Your task to perform on an android device: Add acer nitro to the cart on amazon.com Image 0: 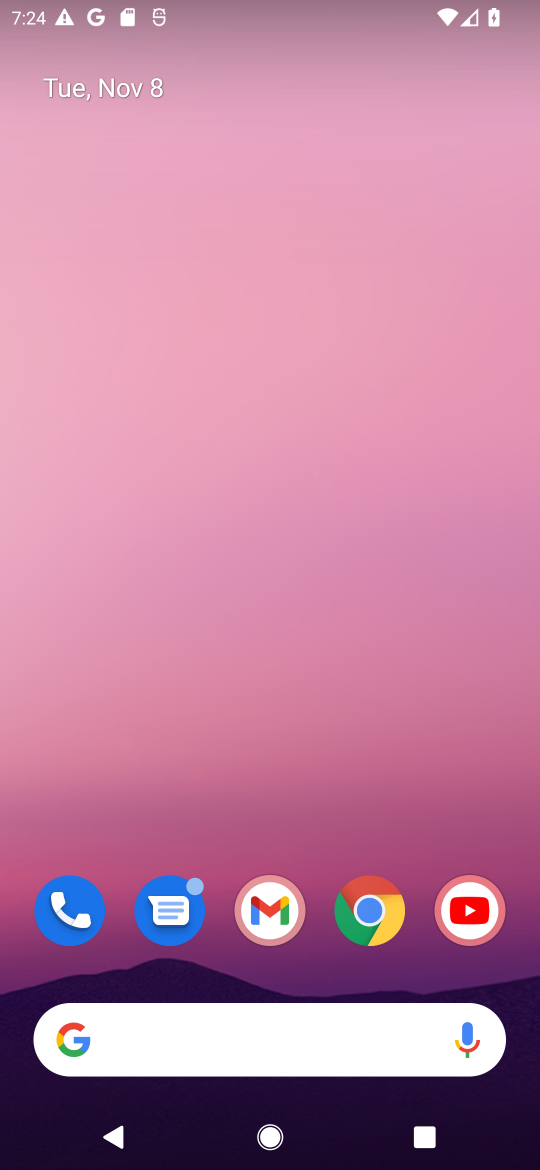
Step 0: click (381, 900)
Your task to perform on an android device: Add acer nitro to the cart on amazon.com Image 1: 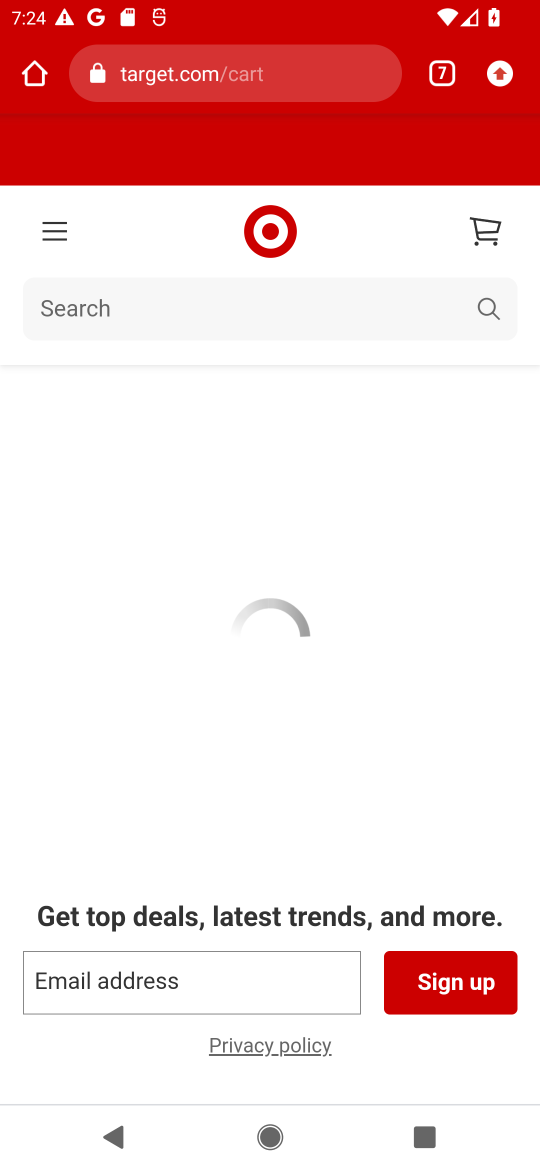
Step 1: click (437, 75)
Your task to perform on an android device: Add acer nitro to the cart on amazon.com Image 2: 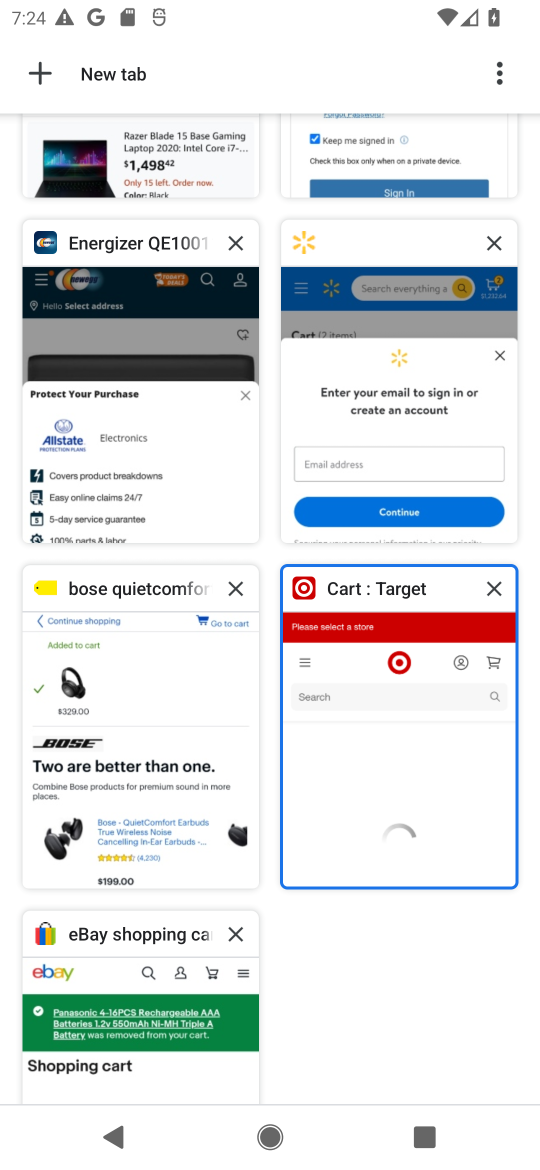
Step 2: drag from (202, 254) to (145, 820)
Your task to perform on an android device: Add acer nitro to the cart on amazon.com Image 3: 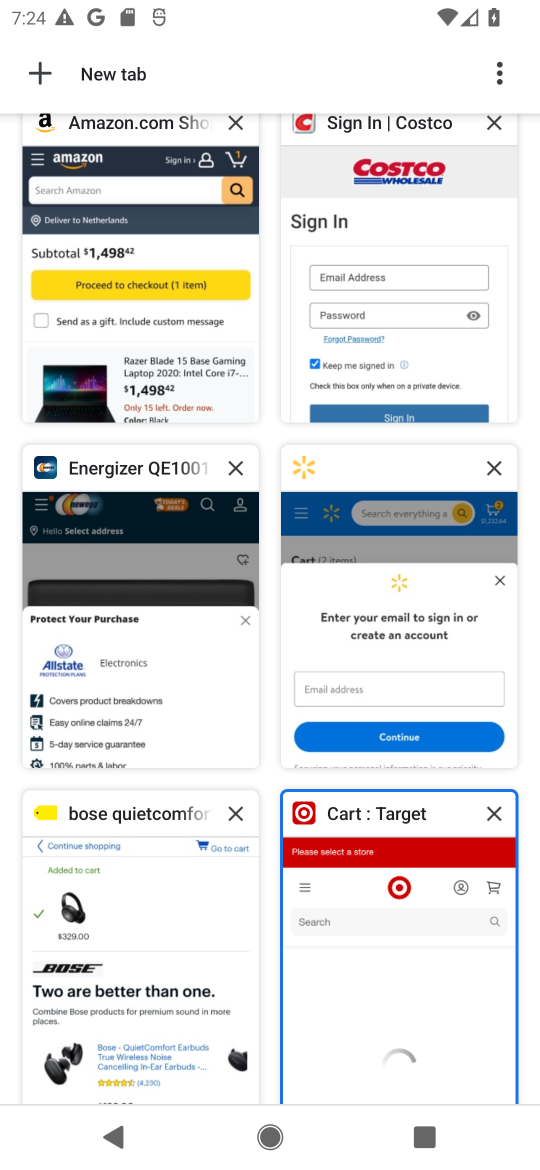
Step 3: click (178, 278)
Your task to perform on an android device: Add acer nitro to the cart on amazon.com Image 4: 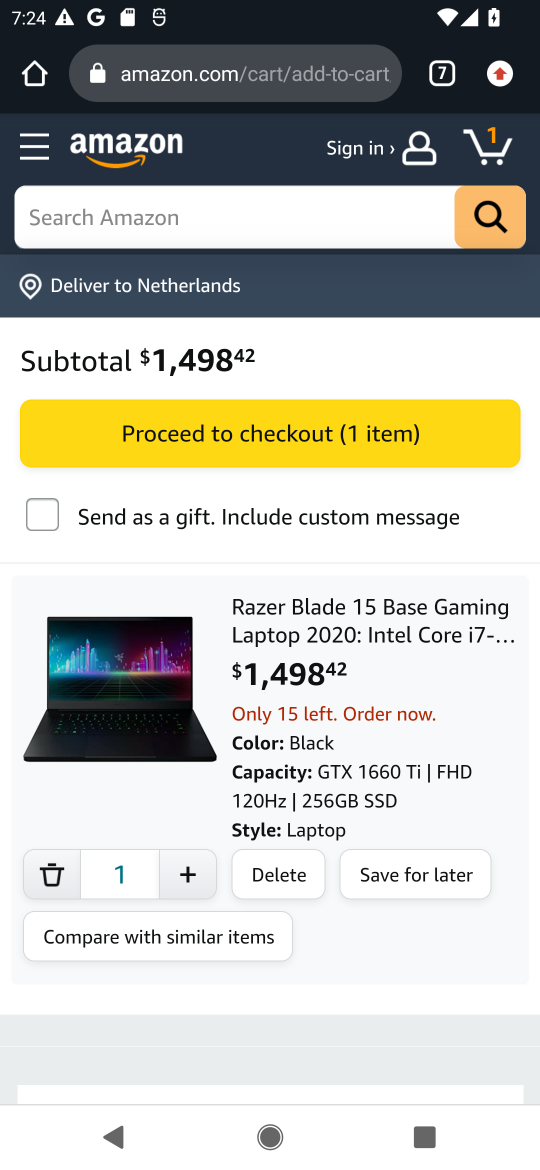
Step 4: click (136, 215)
Your task to perform on an android device: Add acer nitro to the cart on amazon.com Image 5: 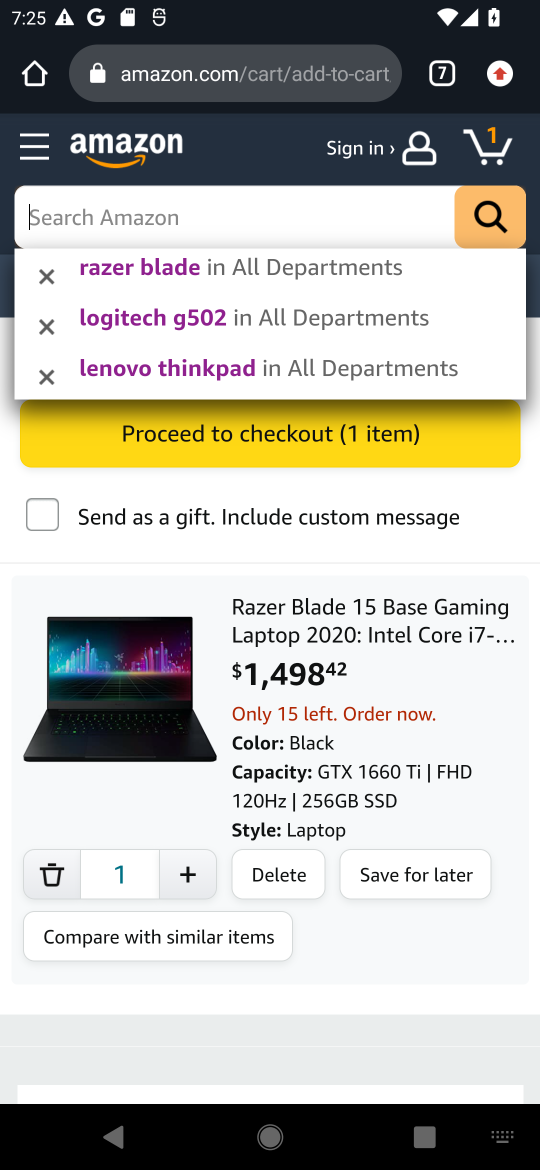
Step 5: type "acer nitro"
Your task to perform on an android device: Add acer nitro to the cart on amazon.com Image 6: 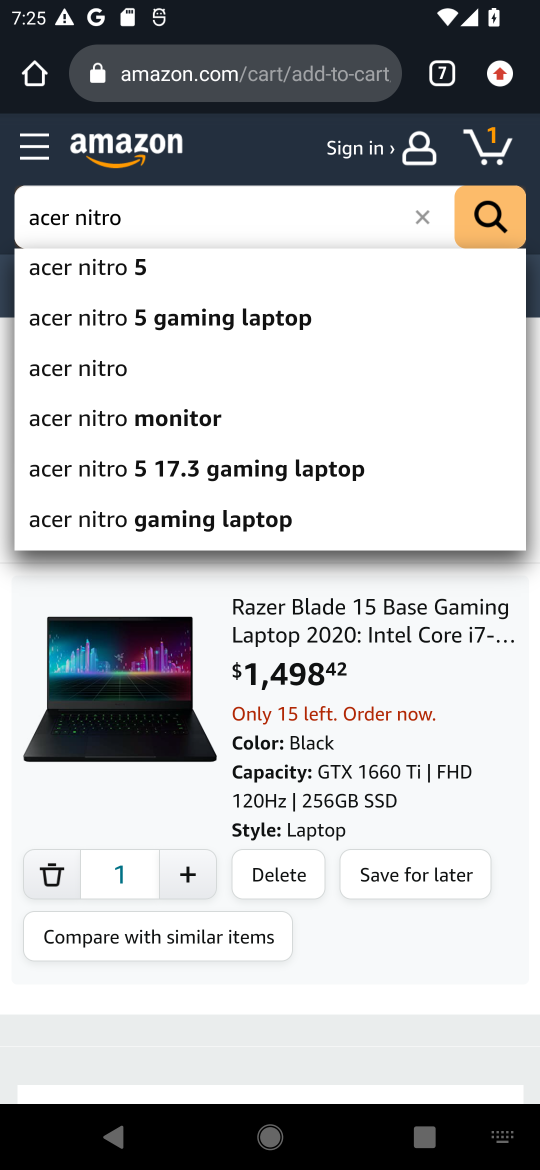
Step 6: click (80, 363)
Your task to perform on an android device: Add acer nitro to the cart on amazon.com Image 7: 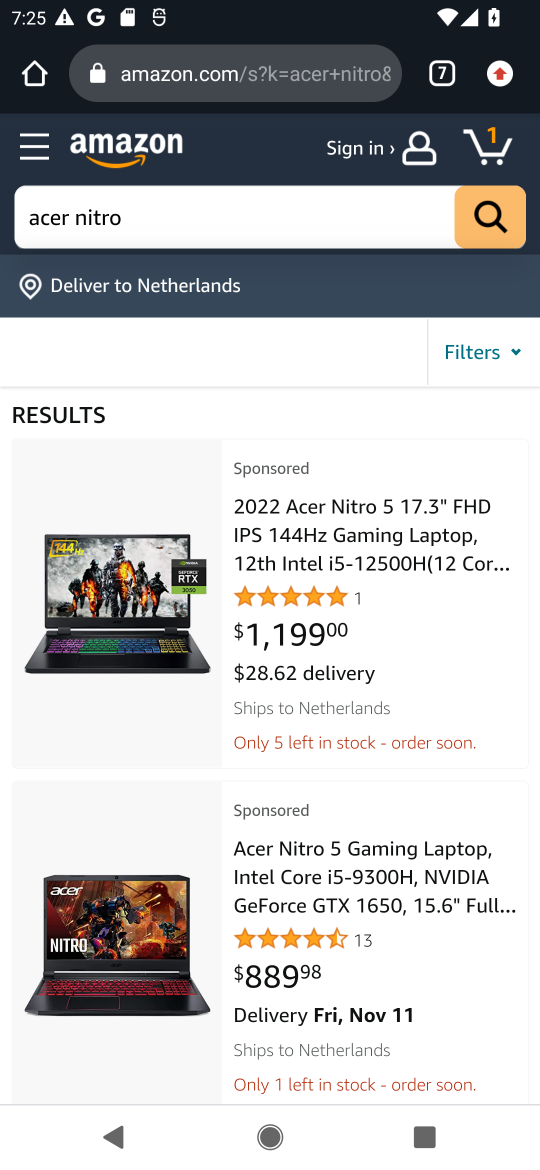
Step 7: click (365, 556)
Your task to perform on an android device: Add acer nitro to the cart on amazon.com Image 8: 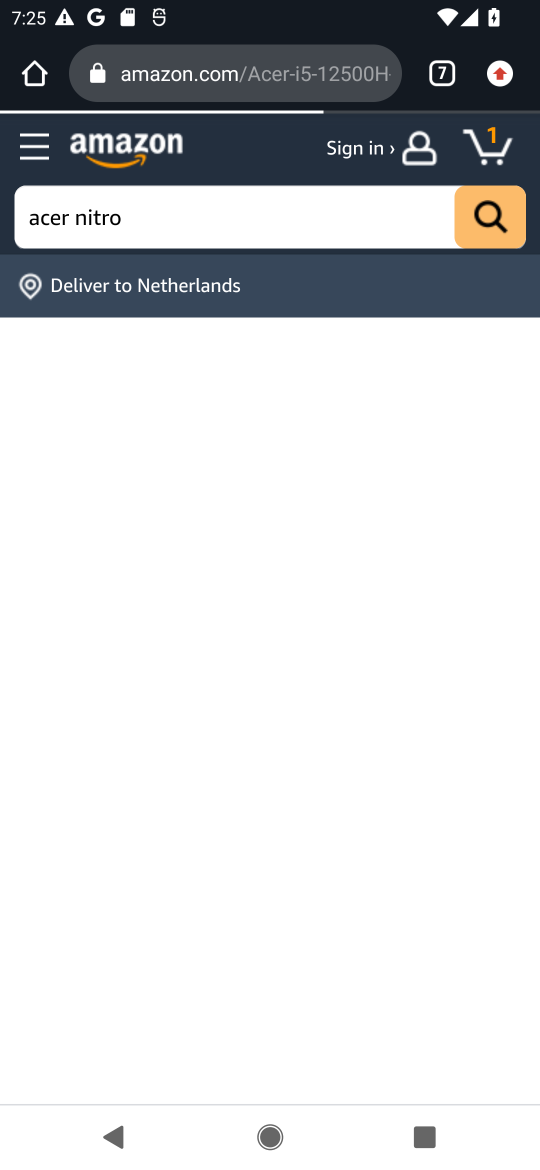
Step 8: click (365, 556)
Your task to perform on an android device: Add acer nitro to the cart on amazon.com Image 9: 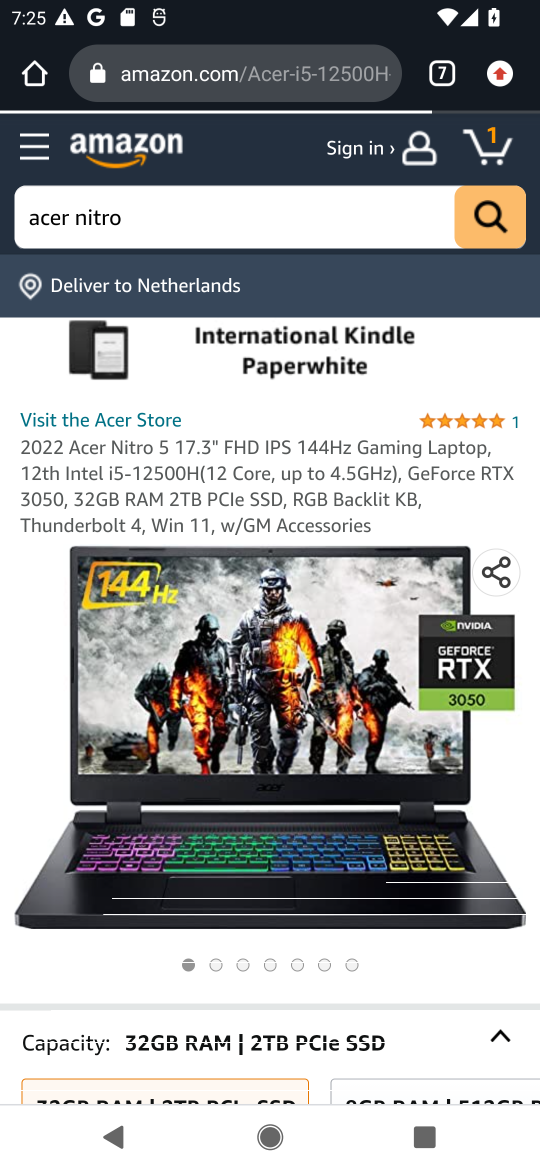
Step 9: drag from (414, 1032) to (468, 682)
Your task to perform on an android device: Add acer nitro to the cart on amazon.com Image 10: 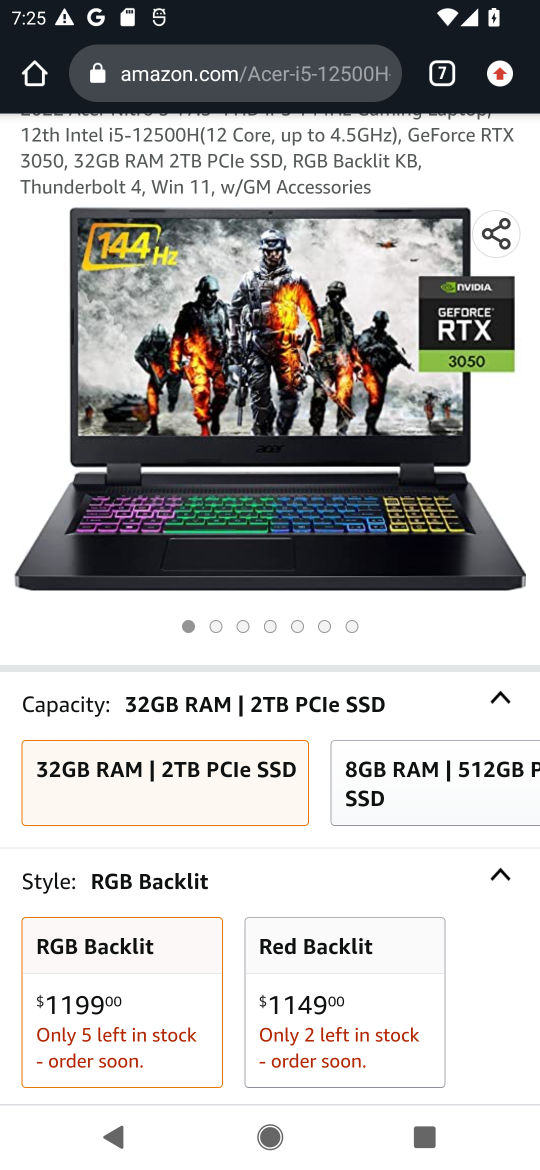
Step 10: drag from (471, 946) to (444, 281)
Your task to perform on an android device: Add acer nitro to the cart on amazon.com Image 11: 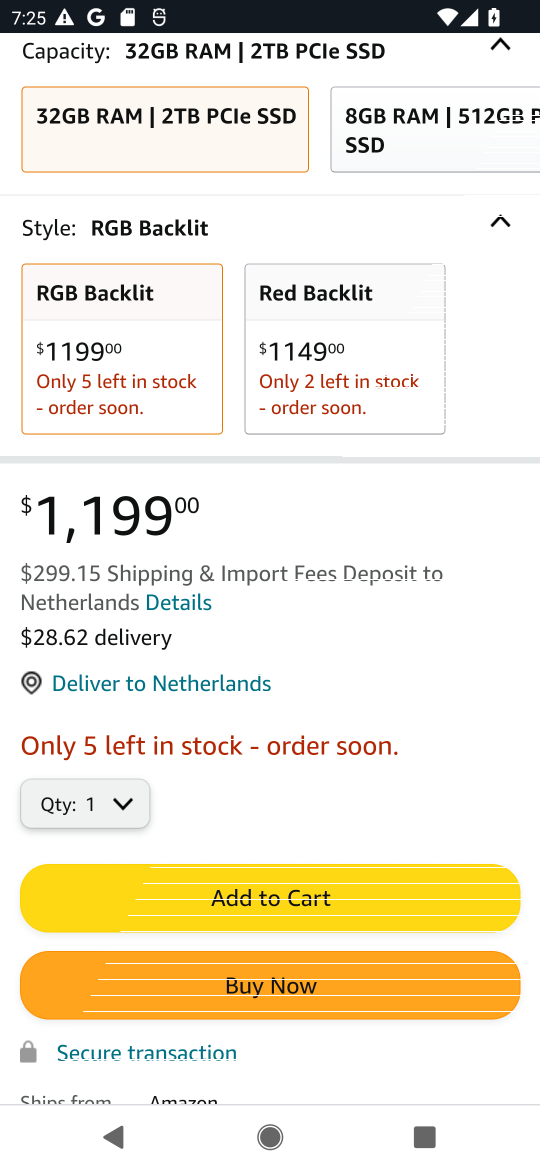
Step 11: click (311, 893)
Your task to perform on an android device: Add acer nitro to the cart on amazon.com Image 12: 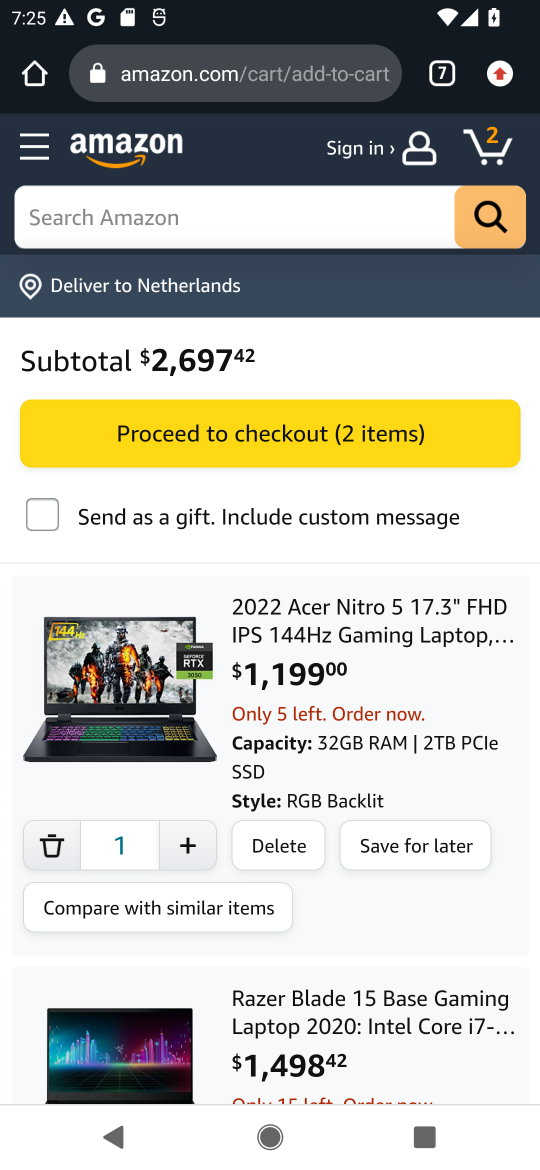
Step 12: task complete